Your task to perform on an android device: Open Maps and search for coffee Image 0: 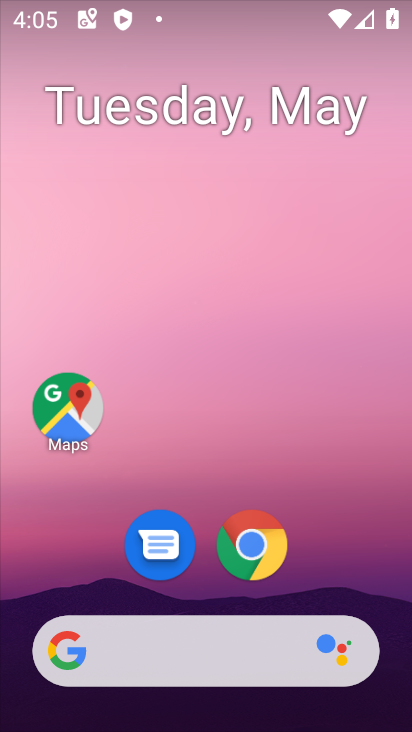
Step 0: click (65, 411)
Your task to perform on an android device: Open Maps and search for coffee Image 1: 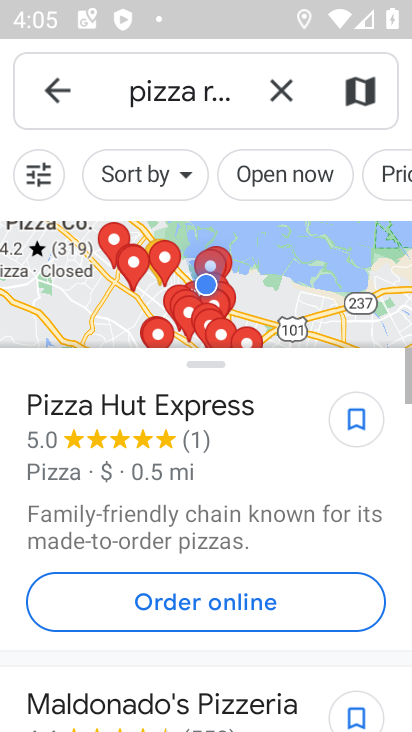
Step 1: click (282, 84)
Your task to perform on an android device: Open Maps and search for coffee Image 2: 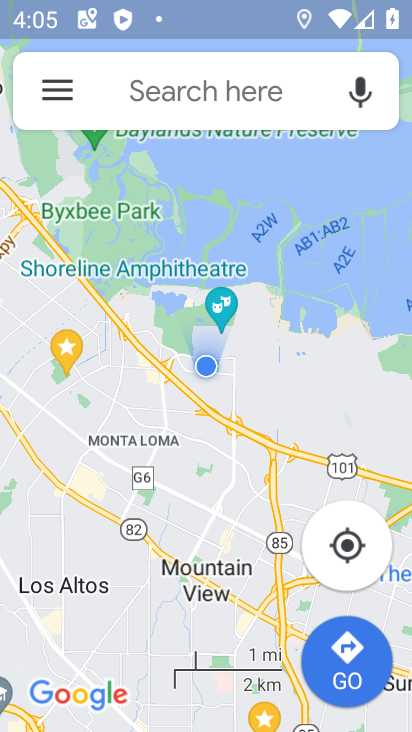
Step 2: click (234, 90)
Your task to perform on an android device: Open Maps and search for coffee Image 3: 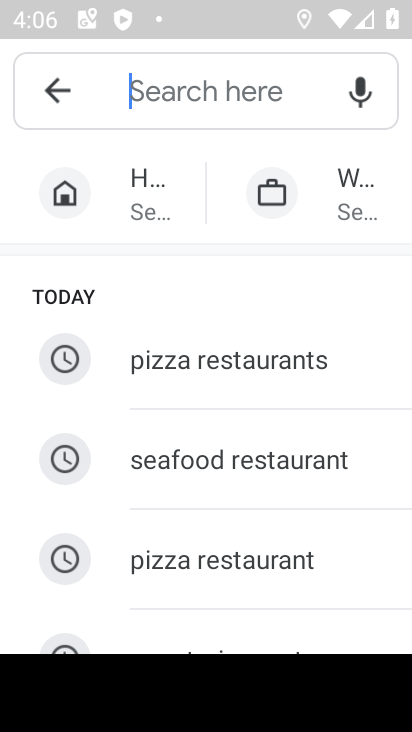
Step 3: type "coffee"
Your task to perform on an android device: Open Maps and search for coffee Image 4: 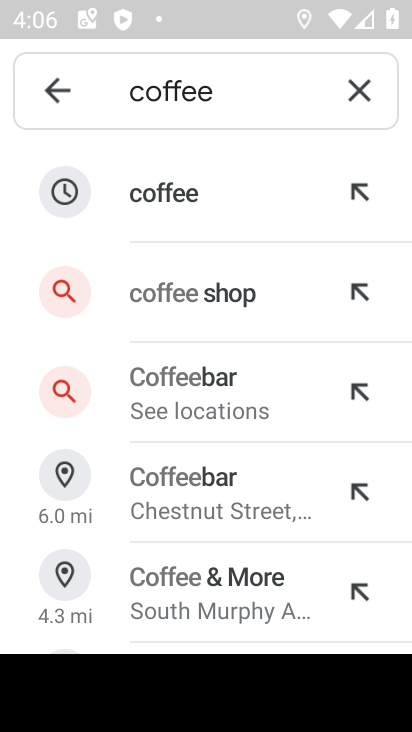
Step 4: click (164, 190)
Your task to perform on an android device: Open Maps and search for coffee Image 5: 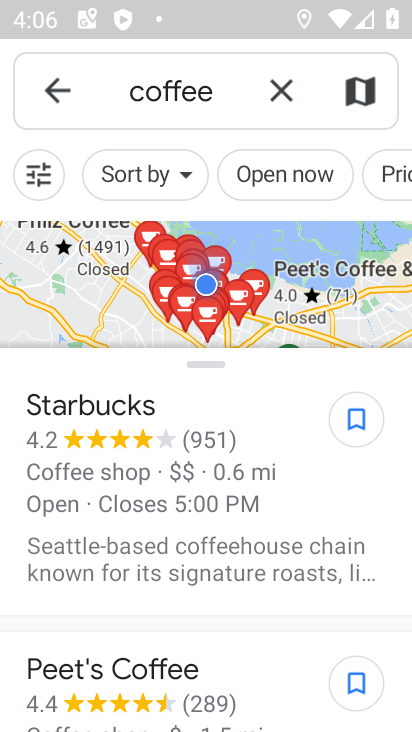
Step 5: task complete